Your task to perform on an android device: uninstall "Cash App" Image 0: 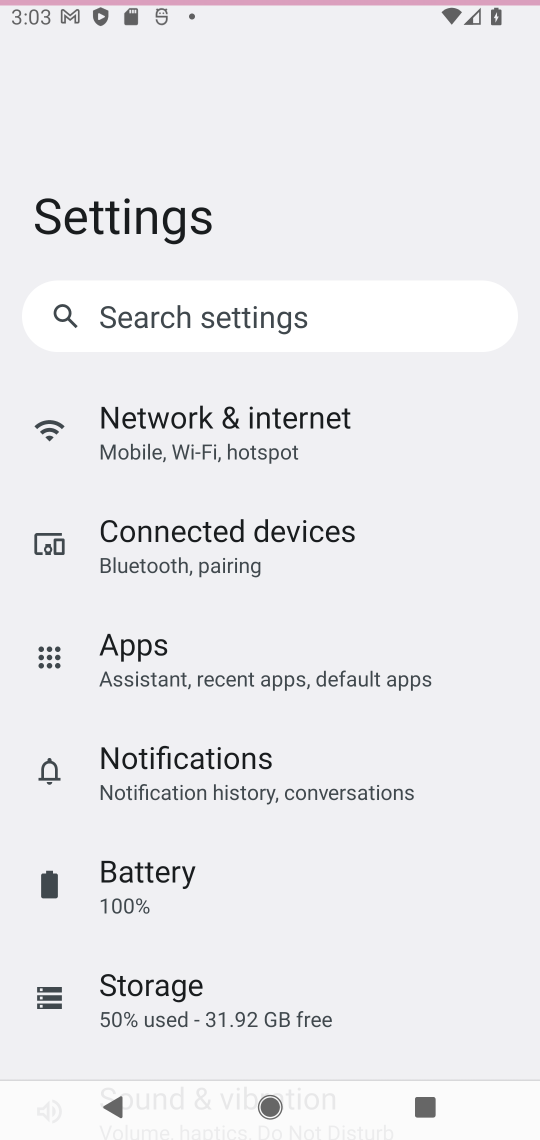
Step 0: press home button
Your task to perform on an android device: uninstall "Cash App" Image 1: 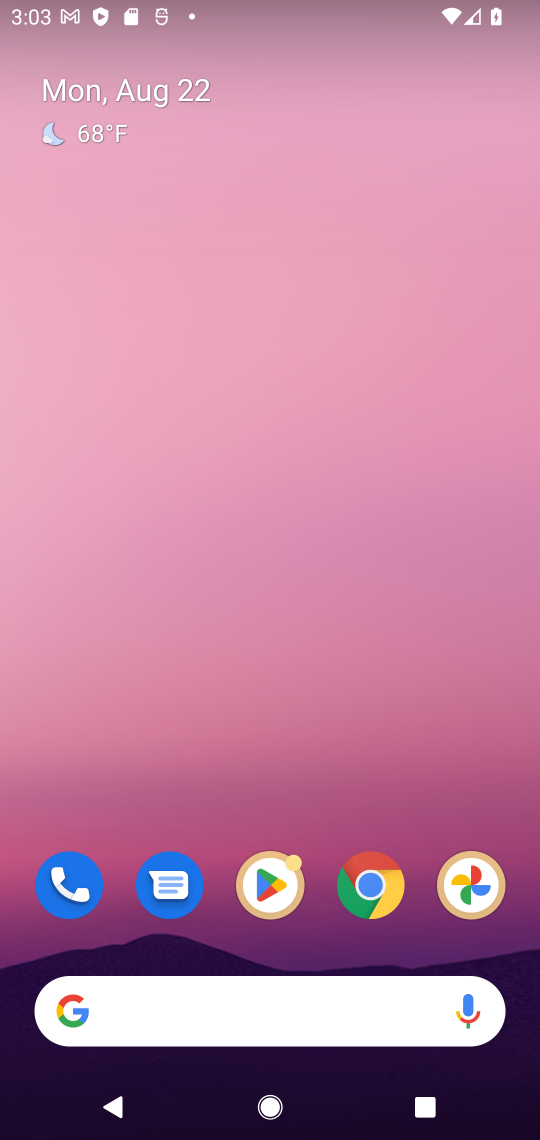
Step 1: press home button
Your task to perform on an android device: uninstall "Cash App" Image 2: 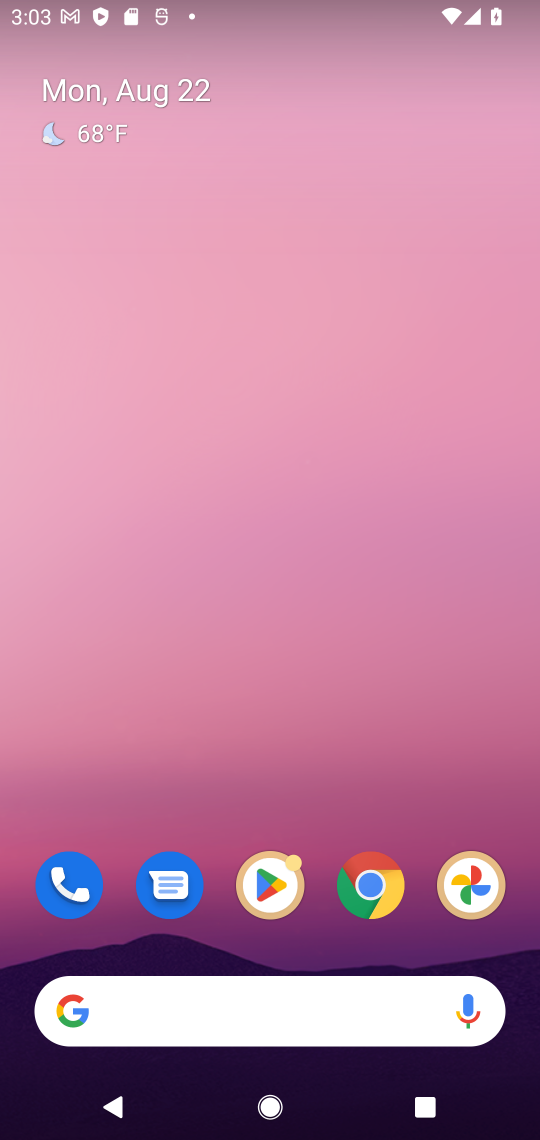
Step 2: click (265, 873)
Your task to perform on an android device: uninstall "Cash App" Image 3: 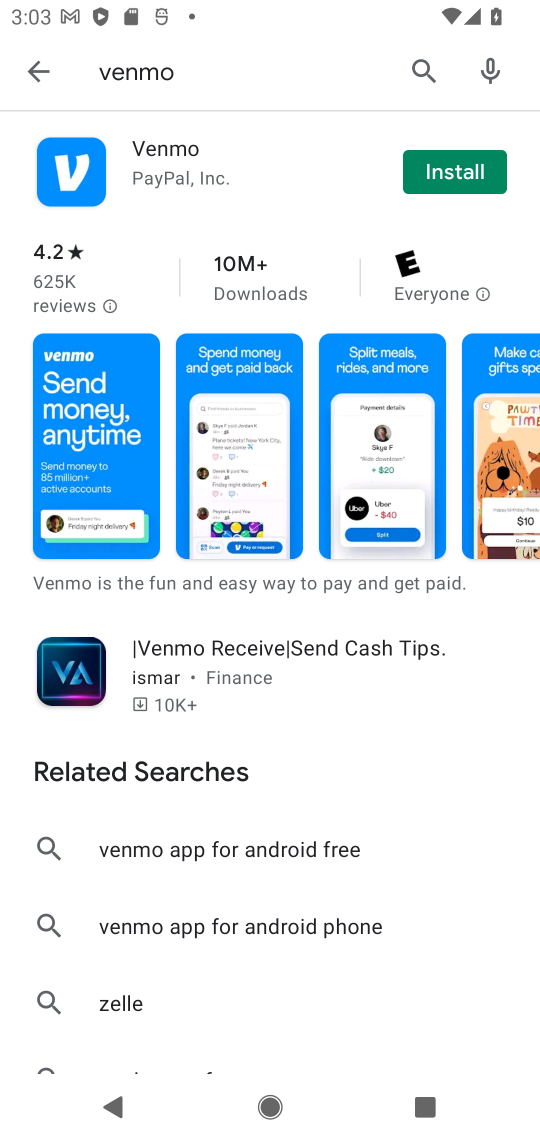
Step 3: click (416, 68)
Your task to perform on an android device: uninstall "Cash App" Image 4: 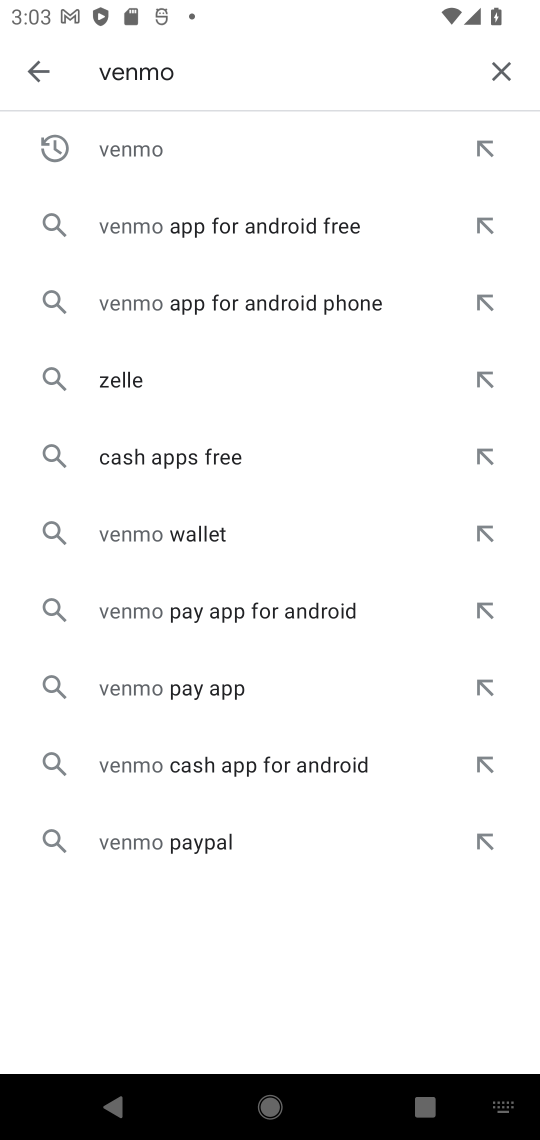
Step 4: click (499, 75)
Your task to perform on an android device: uninstall "Cash App" Image 5: 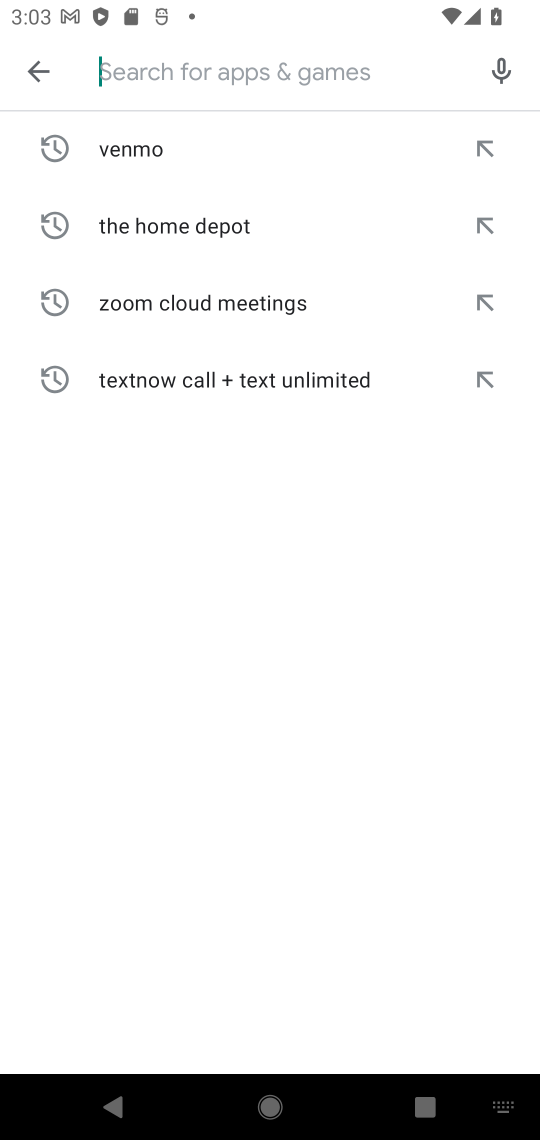
Step 5: type "Cash App"
Your task to perform on an android device: uninstall "Cash App" Image 6: 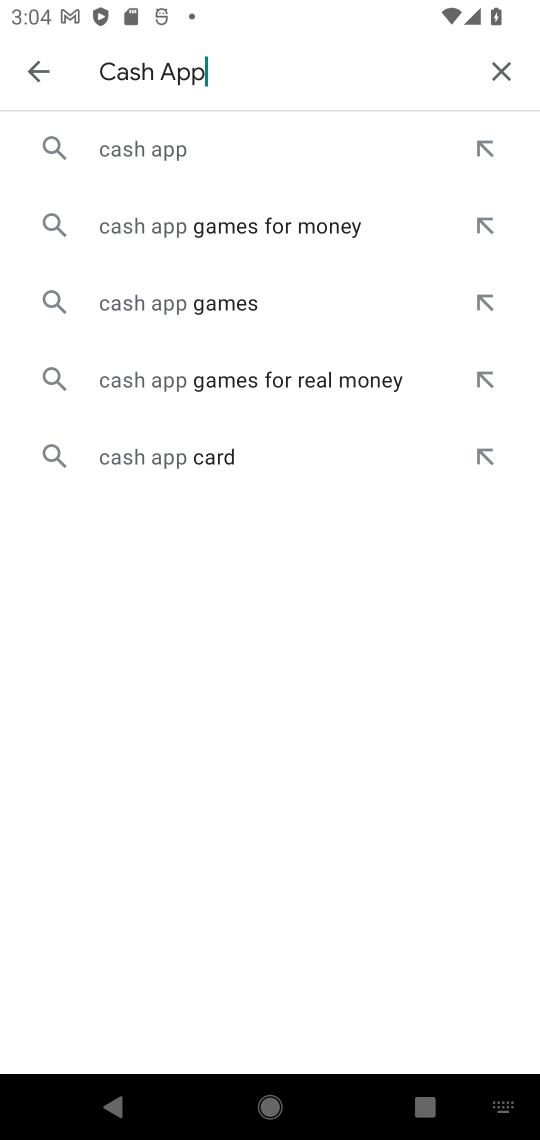
Step 6: click (197, 141)
Your task to perform on an android device: uninstall "Cash App" Image 7: 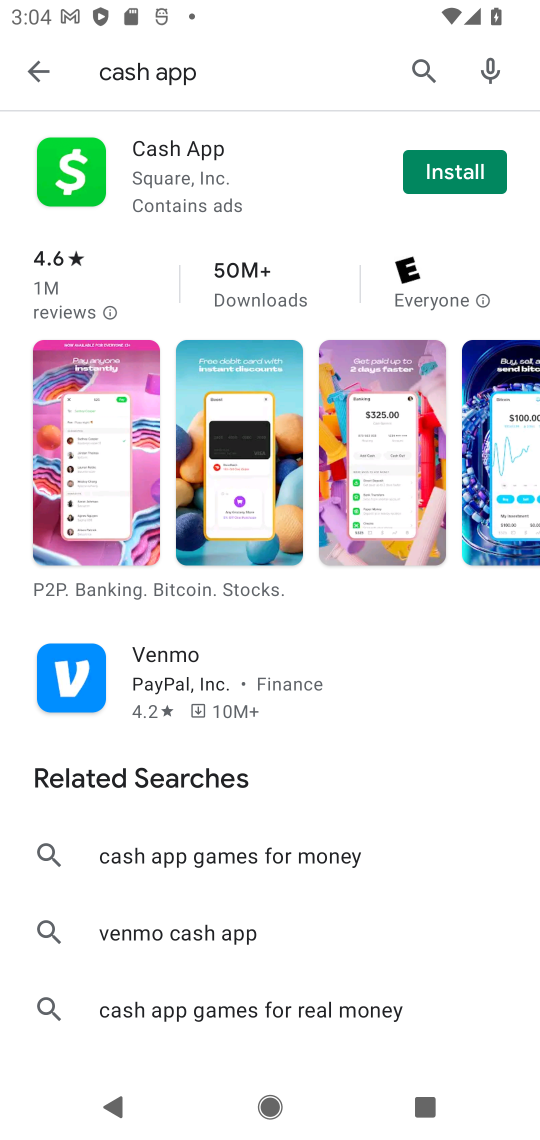
Step 7: task complete